Your task to perform on an android device: toggle wifi Image 0: 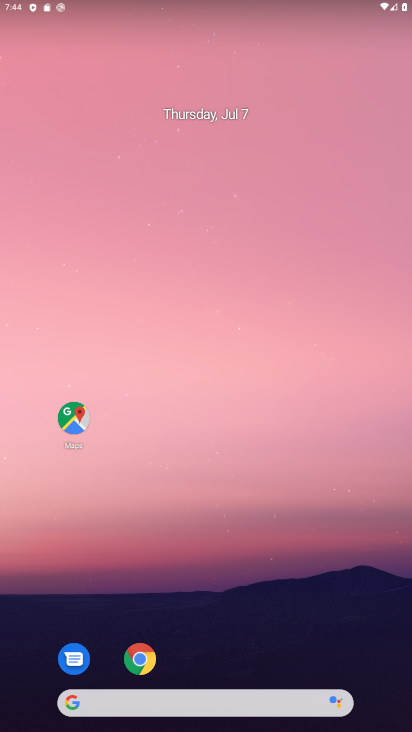
Step 0: drag from (254, 438) to (282, 239)
Your task to perform on an android device: toggle wifi Image 1: 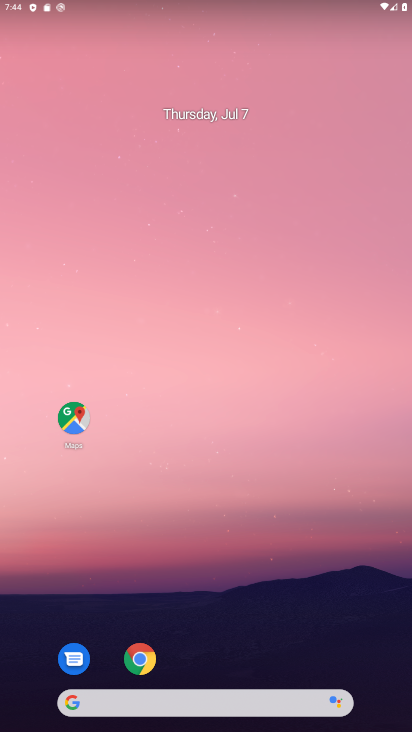
Step 1: drag from (230, 657) to (323, 214)
Your task to perform on an android device: toggle wifi Image 2: 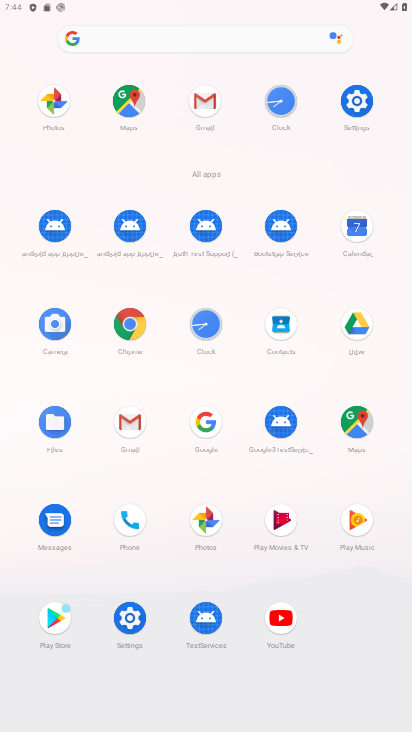
Step 2: click (363, 108)
Your task to perform on an android device: toggle wifi Image 3: 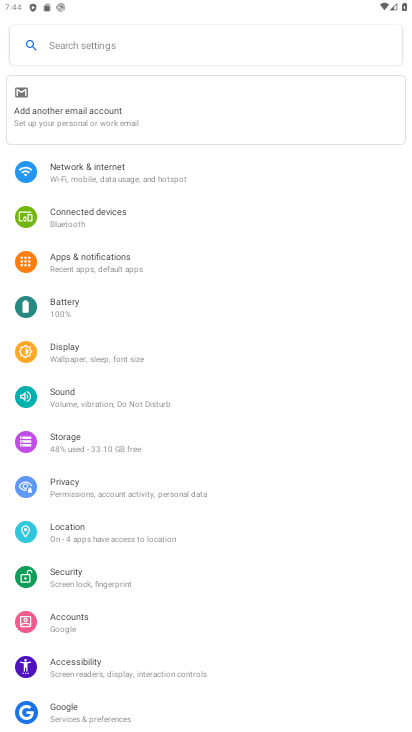
Step 3: click (127, 181)
Your task to perform on an android device: toggle wifi Image 4: 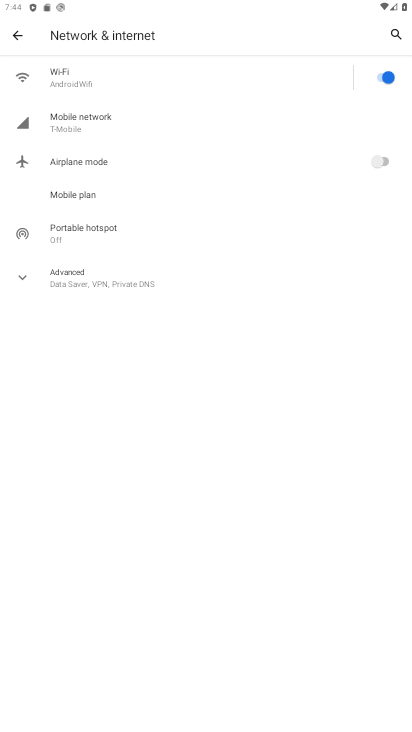
Step 4: click (381, 76)
Your task to perform on an android device: toggle wifi Image 5: 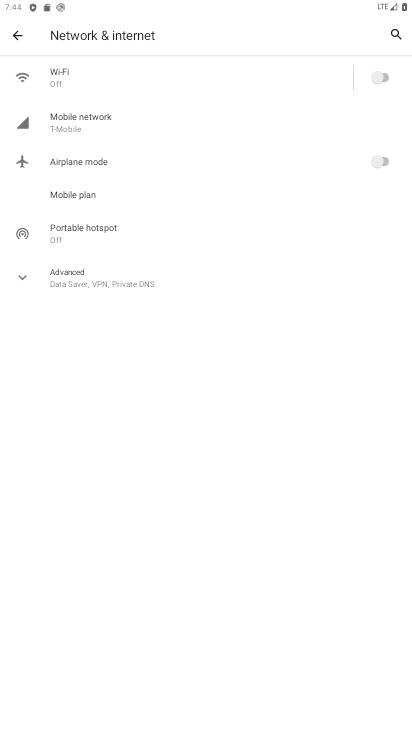
Step 5: task complete